Your task to perform on an android device: Show me popular games on the Play Store Image 0: 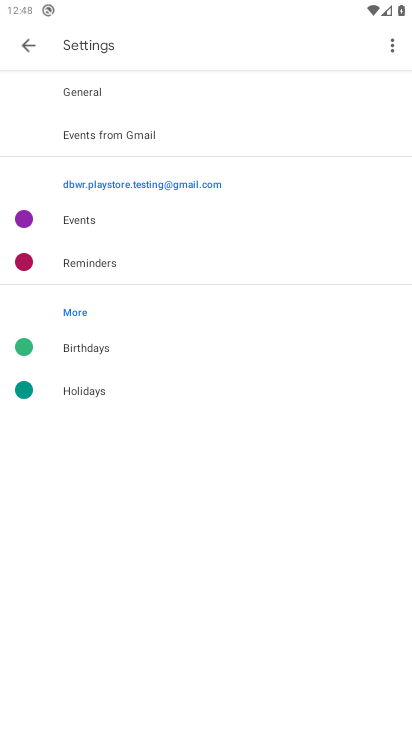
Step 0: press home button
Your task to perform on an android device: Show me popular games on the Play Store Image 1: 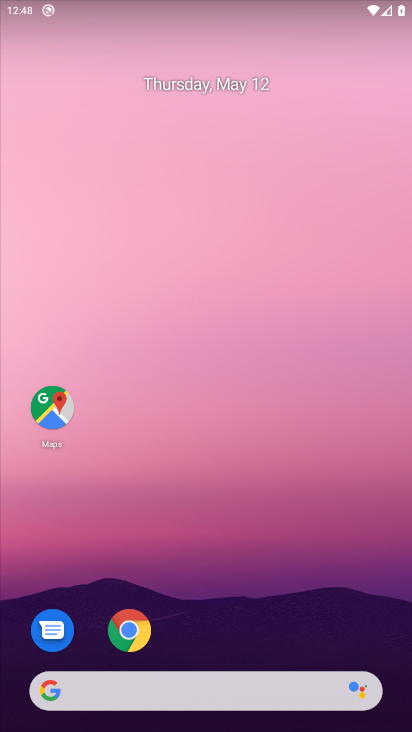
Step 1: drag from (244, 630) to (331, 64)
Your task to perform on an android device: Show me popular games on the Play Store Image 2: 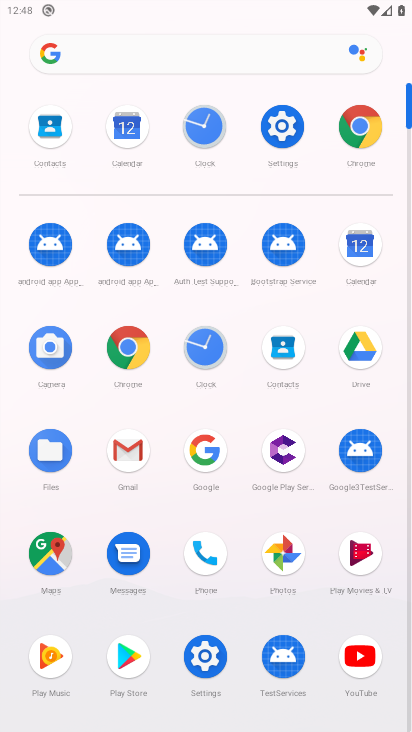
Step 2: click (132, 660)
Your task to perform on an android device: Show me popular games on the Play Store Image 3: 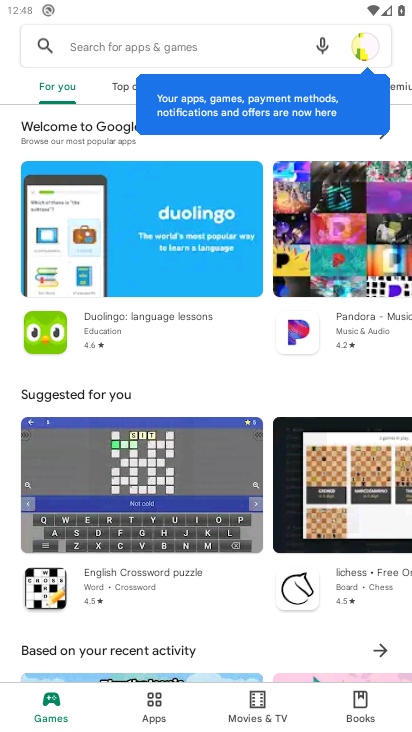
Step 3: click (208, 32)
Your task to perform on an android device: Show me popular games on the Play Store Image 4: 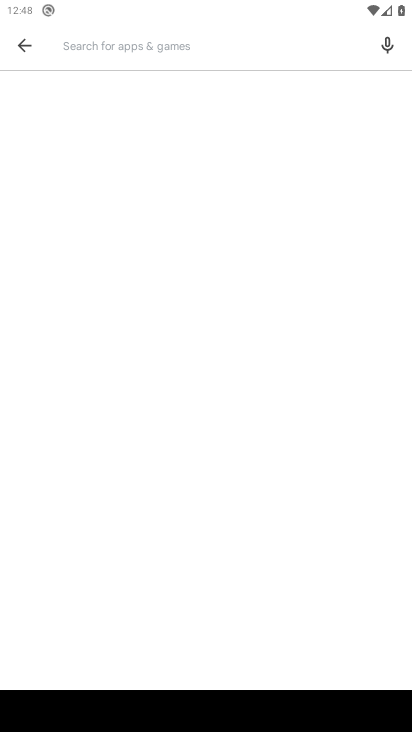
Step 4: type "popular games"
Your task to perform on an android device: Show me popular games on the Play Store Image 5: 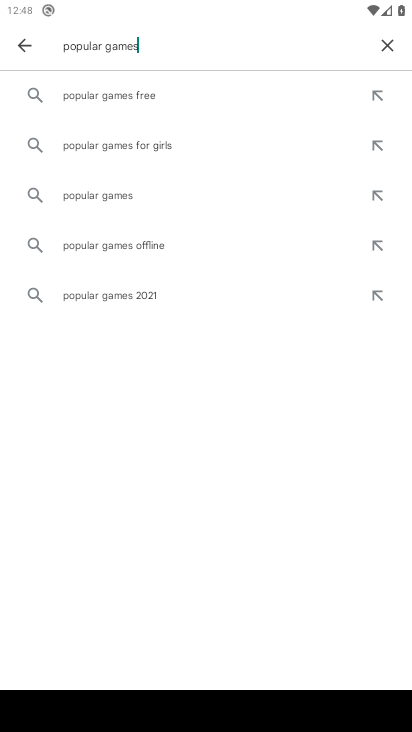
Step 5: click (115, 91)
Your task to perform on an android device: Show me popular games on the Play Store Image 6: 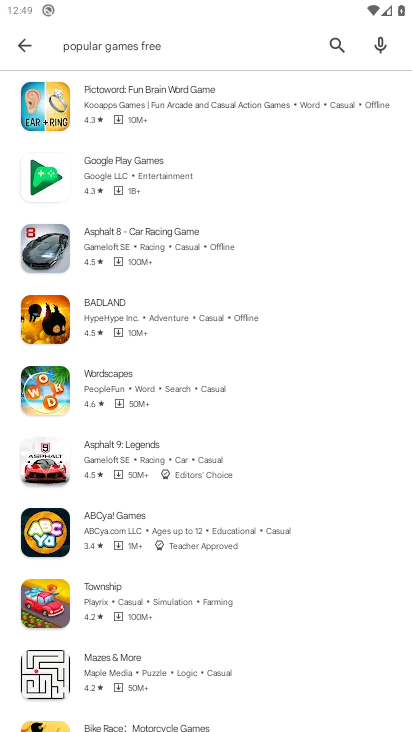
Step 6: task complete